Your task to perform on an android device: move an email to a new category in the gmail app Image 0: 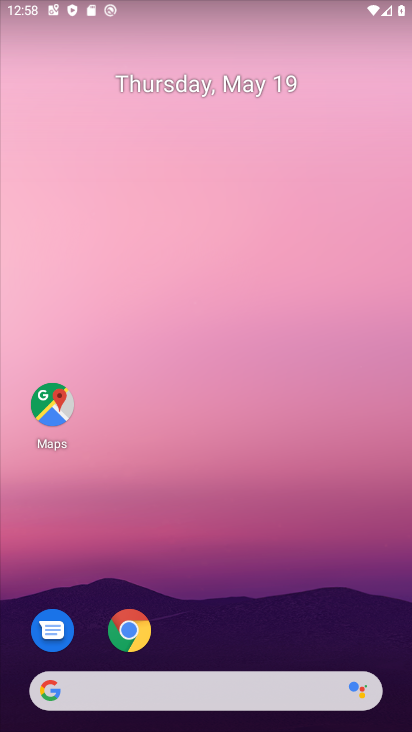
Step 0: drag from (197, 642) to (136, 58)
Your task to perform on an android device: move an email to a new category in the gmail app Image 1: 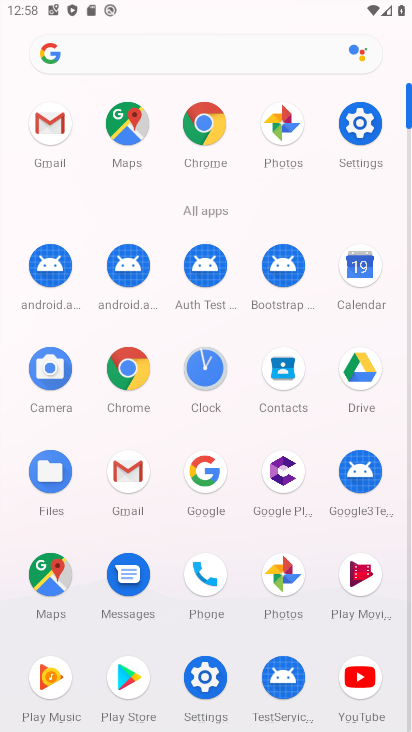
Step 1: click (127, 466)
Your task to perform on an android device: move an email to a new category in the gmail app Image 2: 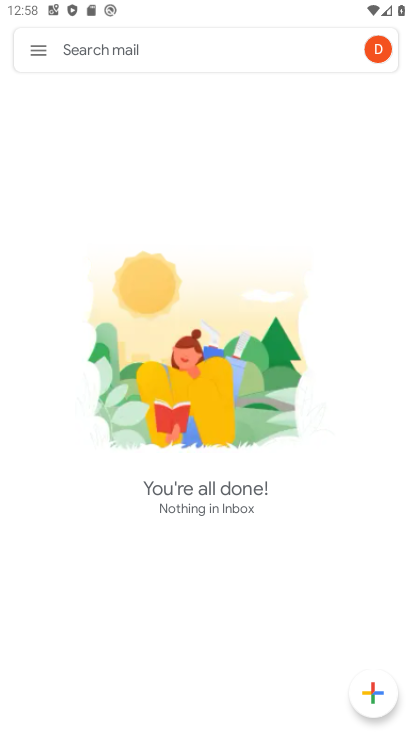
Step 2: task complete